Your task to perform on an android device: turn off improve location accuracy Image 0: 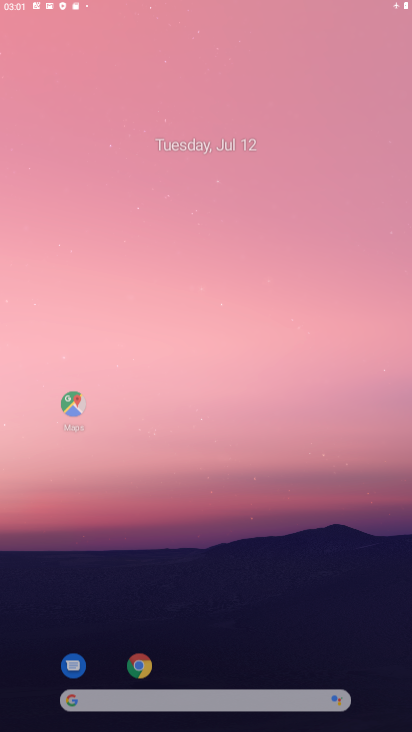
Step 0: press home button
Your task to perform on an android device: turn off improve location accuracy Image 1: 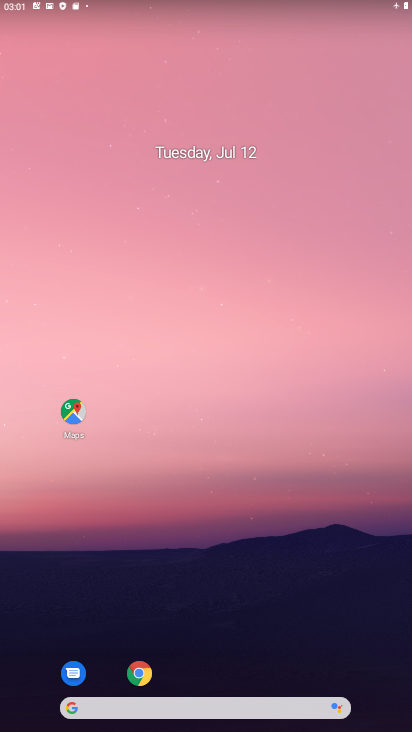
Step 1: press home button
Your task to perform on an android device: turn off improve location accuracy Image 2: 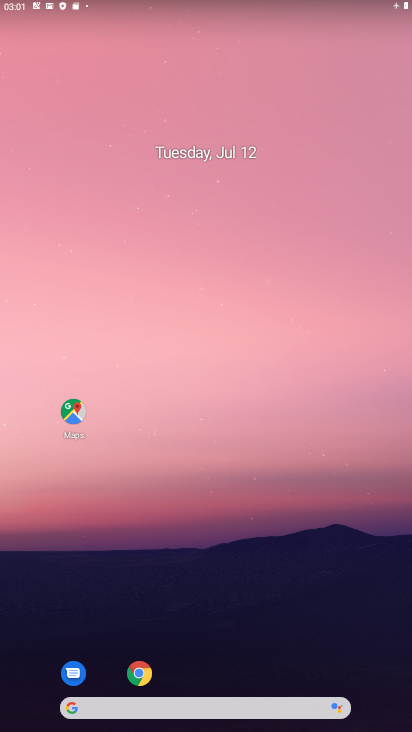
Step 2: drag from (269, 283) to (273, 120)
Your task to perform on an android device: turn off improve location accuracy Image 3: 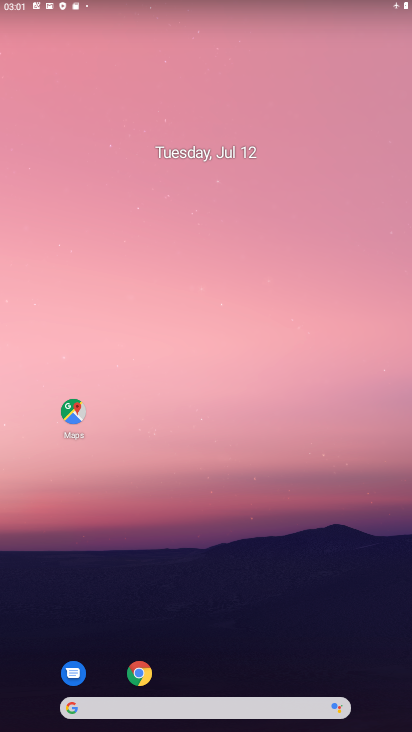
Step 3: drag from (211, 583) to (216, 60)
Your task to perform on an android device: turn off improve location accuracy Image 4: 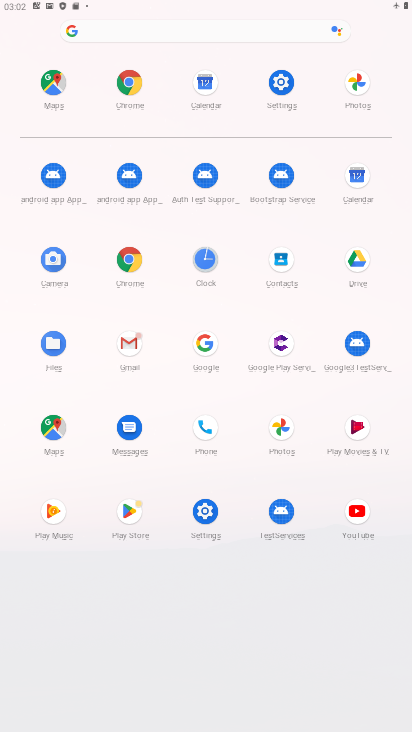
Step 4: click (284, 79)
Your task to perform on an android device: turn off improve location accuracy Image 5: 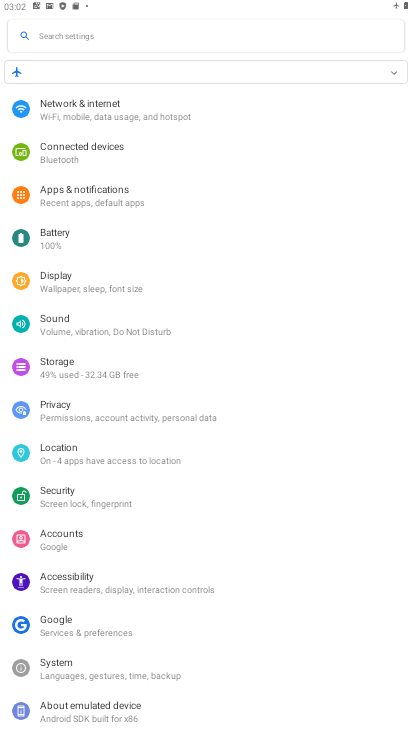
Step 5: click (56, 452)
Your task to perform on an android device: turn off improve location accuracy Image 6: 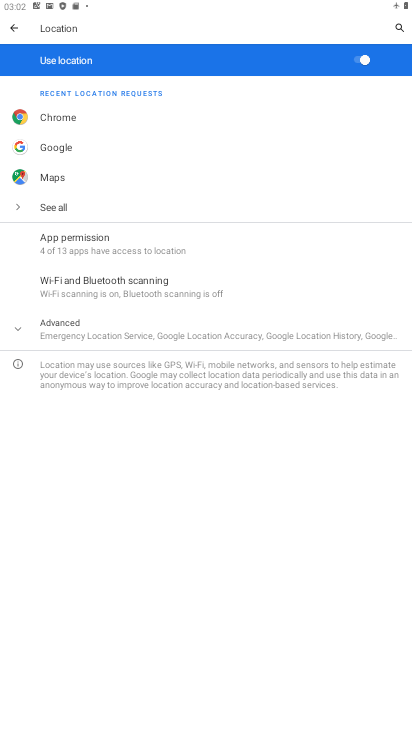
Step 6: click (27, 327)
Your task to perform on an android device: turn off improve location accuracy Image 7: 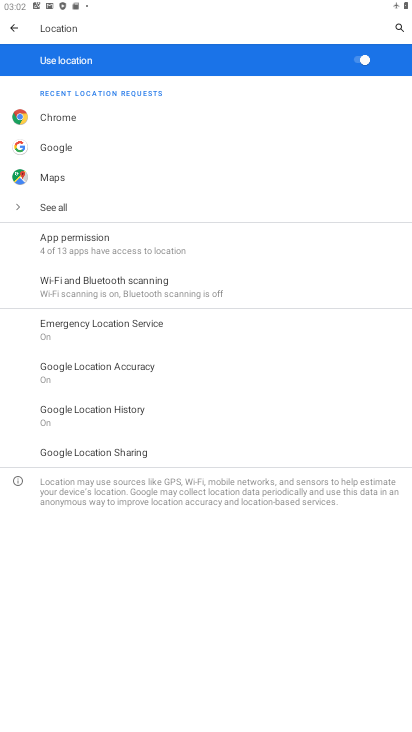
Step 7: click (100, 364)
Your task to perform on an android device: turn off improve location accuracy Image 8: 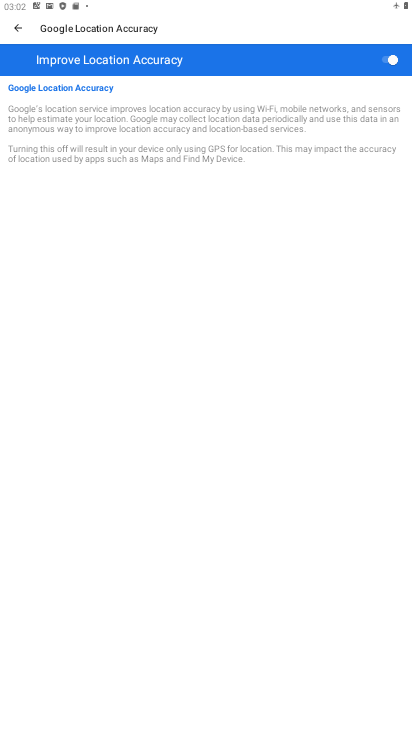
Step 8: click (384, 58)
Your task to perform on an android device: turn off improve location accuracy Image 9: 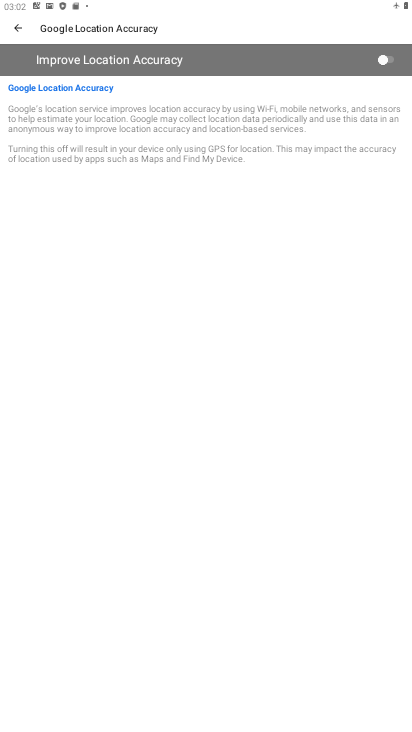
Step 9: task complete